Your task to perform on an android device: Go to Wikipedia Image 0: 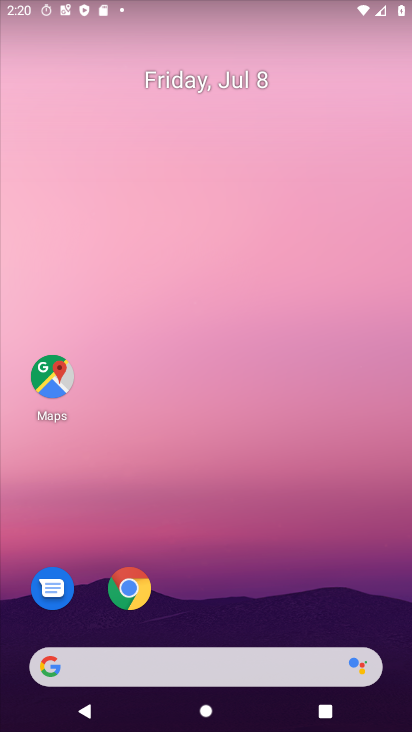
Step 0: press home button
Your task to perform on an android device: Go to Wikipedia Image 1: 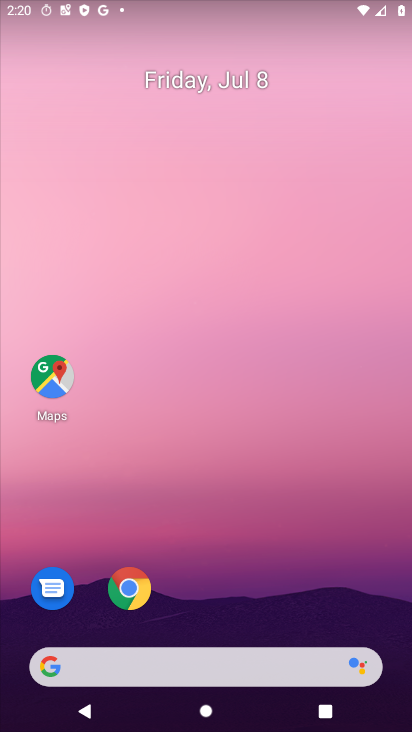
Step 1: click (47, 669)
Your task to perform on an android device: Go to Wikipedia Image 2: 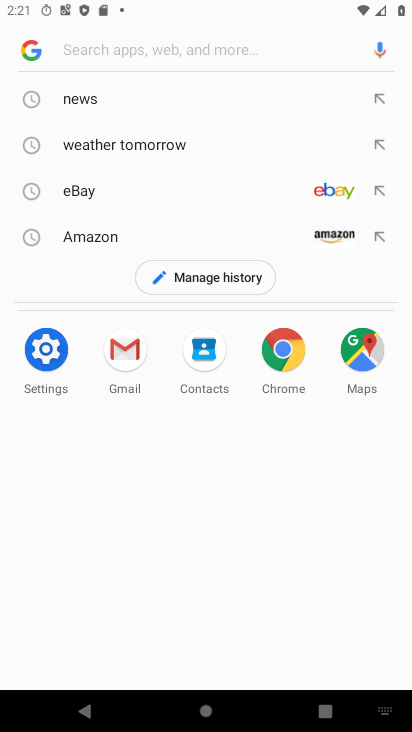
Step 2: type "Wikipedia"
Your task to perform on an android device: Go to Wikipedia Image 3: 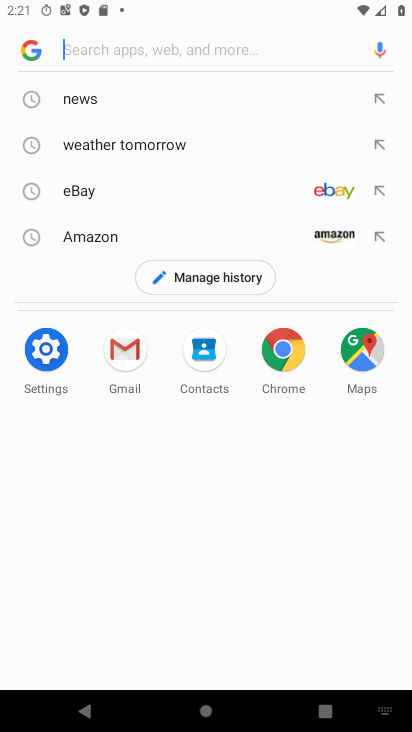
Step 3: click (208, 41)
Your task to perform on an android device: Go to Wikipedia Image 4: 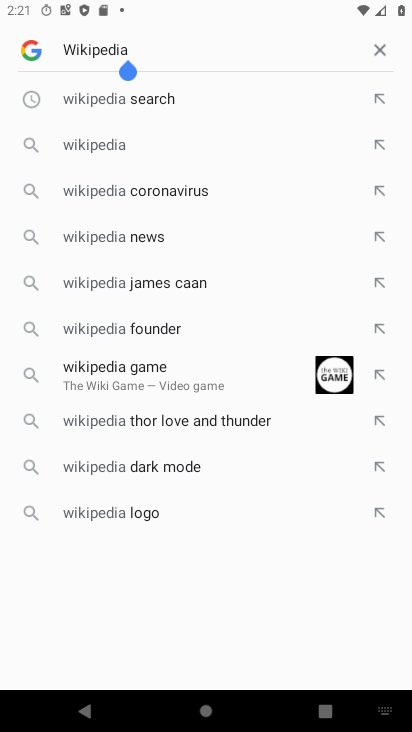
Step 4: click (88, 142)
Your task to perform on an android device: Go to Wikipedia Image 5: 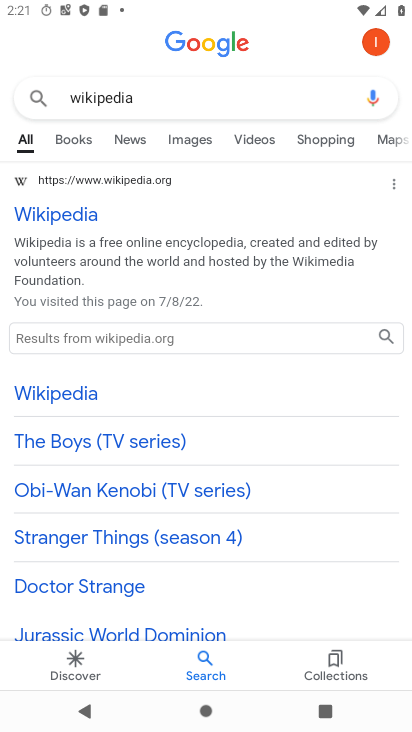
Step 5: click (56, 222)
Your task to perform on an android device: Go to Wikipedia Image 6: 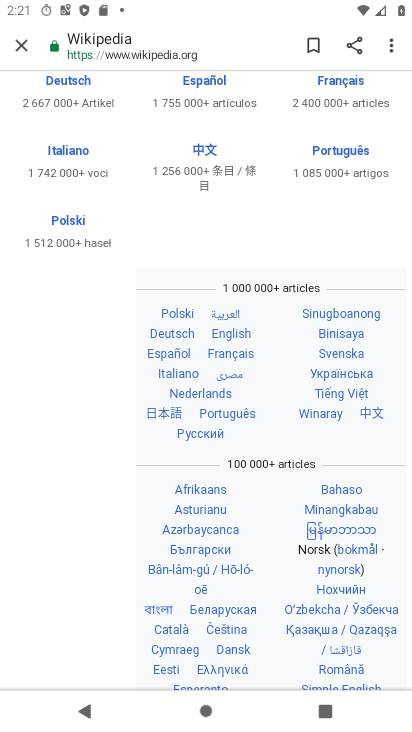
Step 6: task complete